Your task to perform on an android device: Show the shopping cart on costco.com. Image 0: 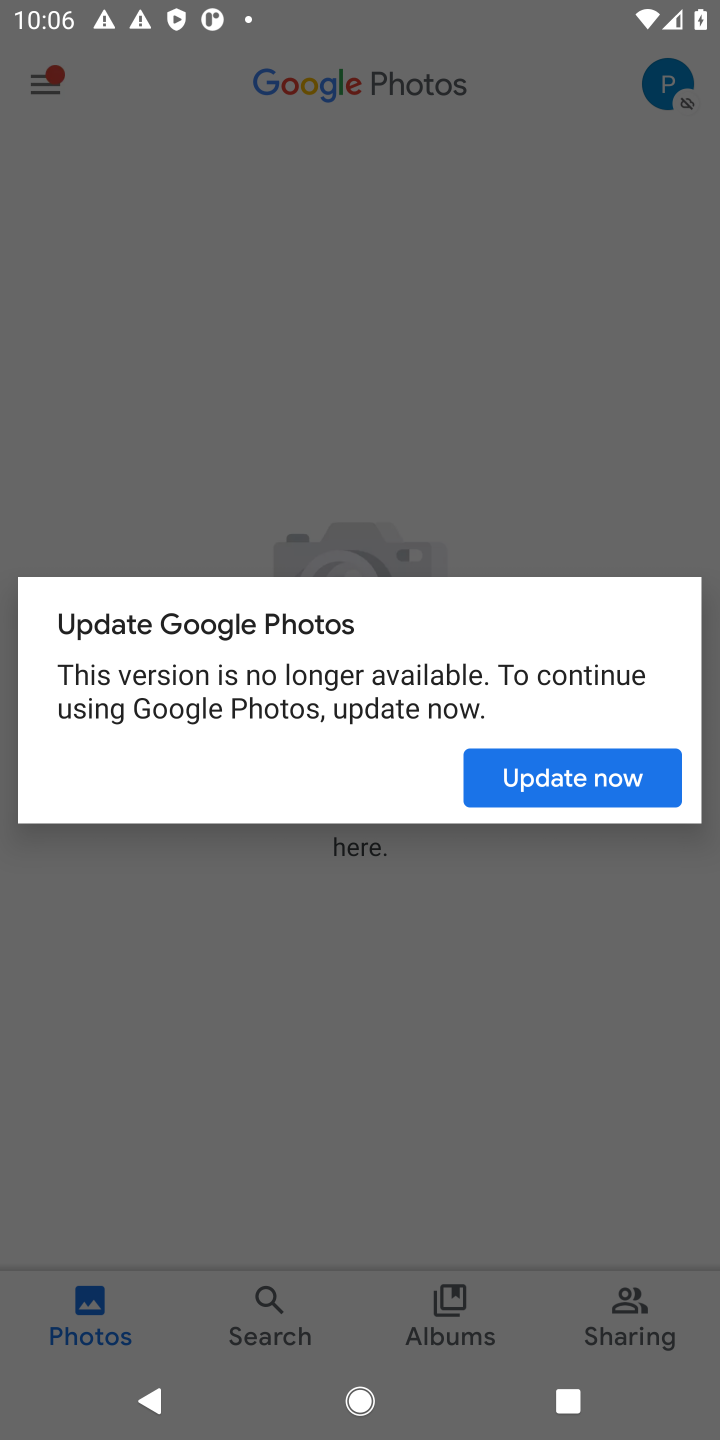
Step 0: press home button
Your task to perform on an android device: Show the shopping cart on costco.com. Image 1: 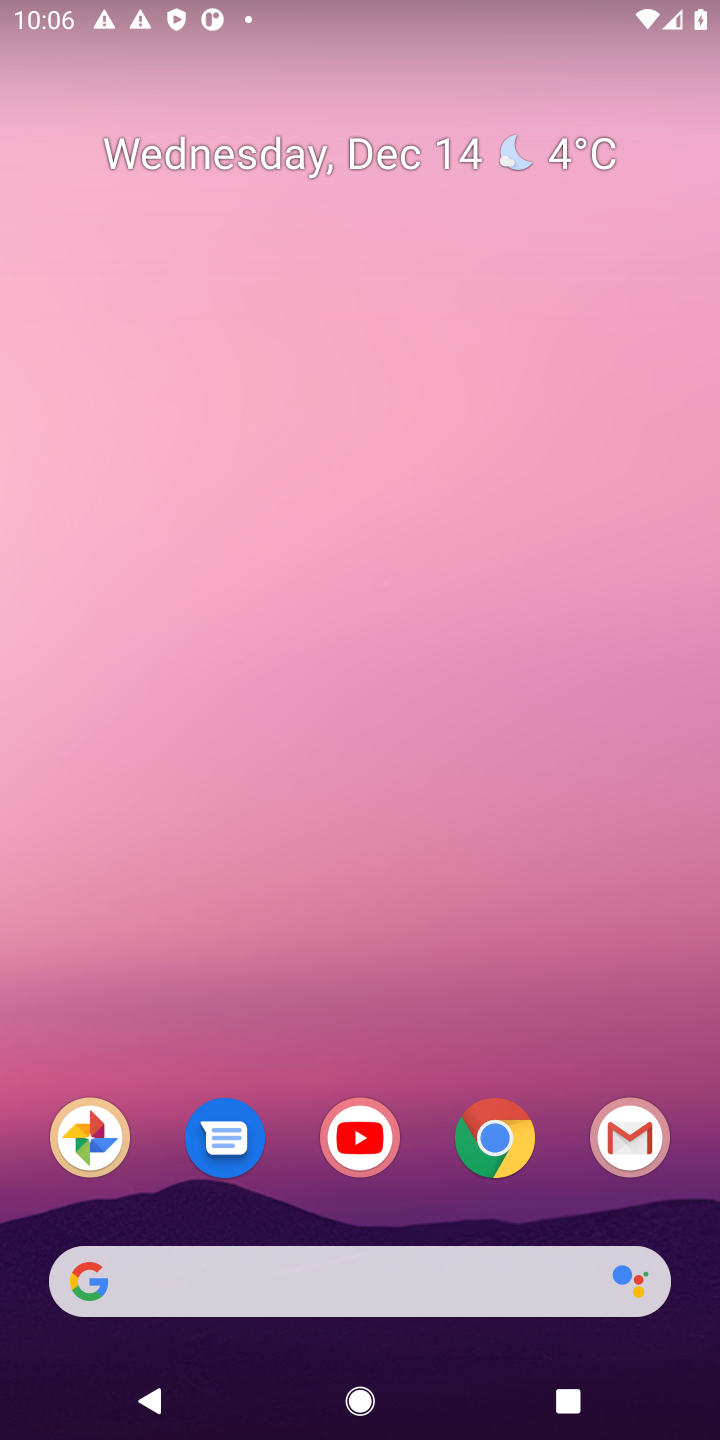
Step 1: click (487, 1150)
Your task to perform on an android device: Show the shopping cart on costco.com. Image 2: 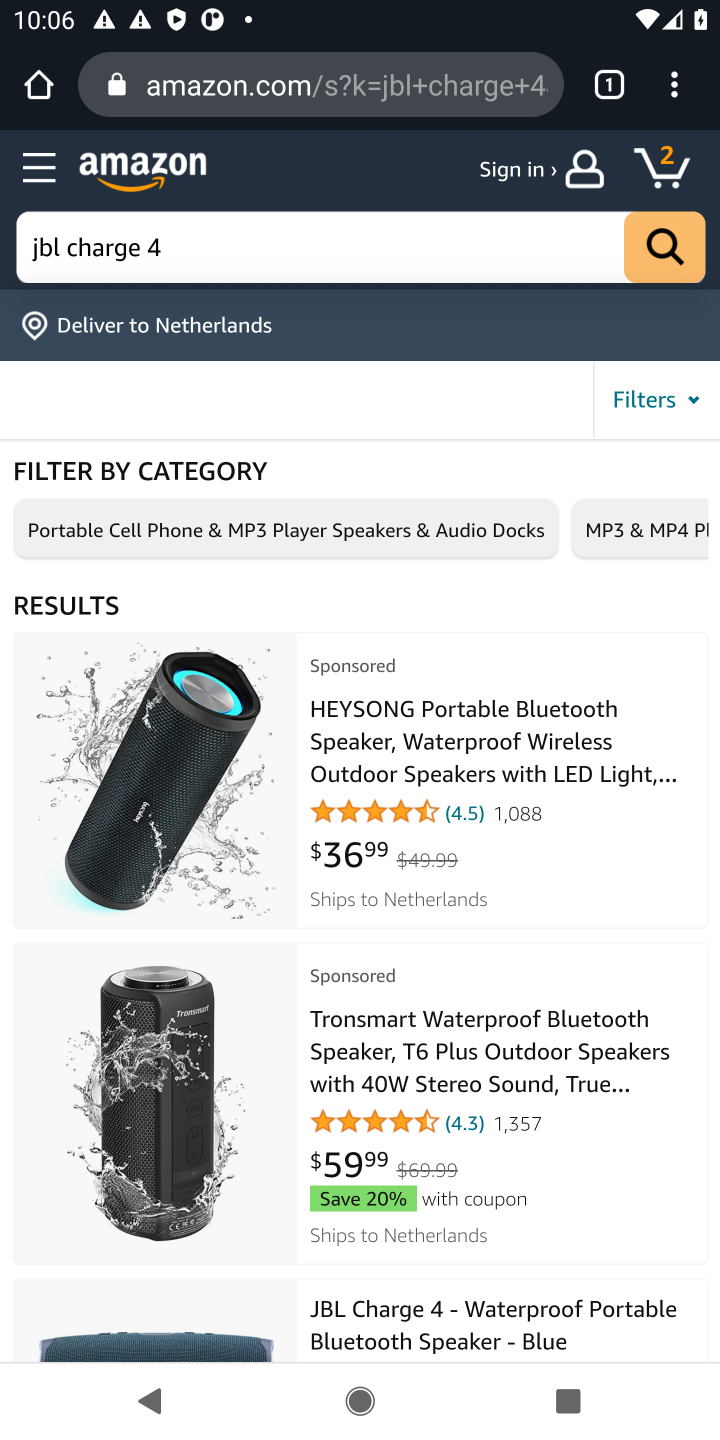
Step 2: click (228, 94)
Your task to perform on an android device: Show the shopping cart on costco.com. Image 3: 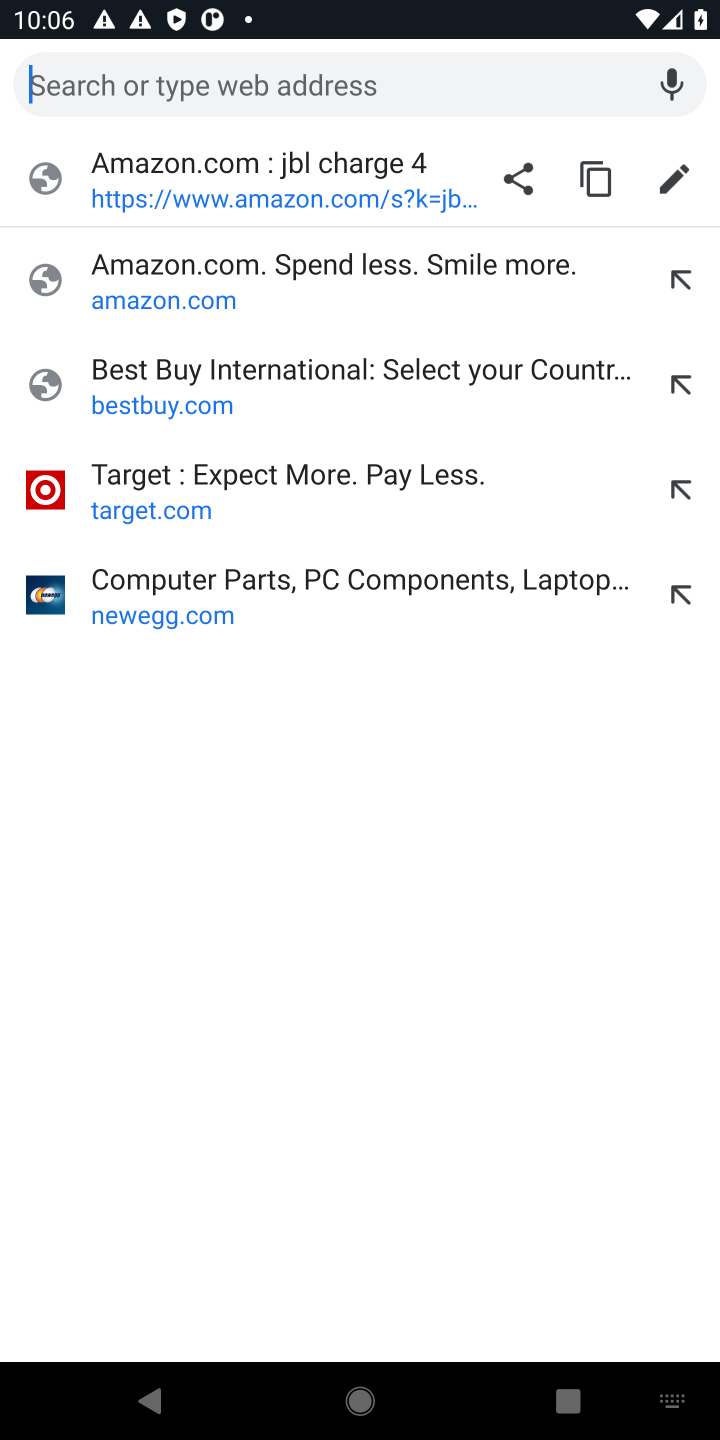
Step 3: type "costco.com"
Your task to perform on an android device: Show the shopping cart on costco.com. Image 4: 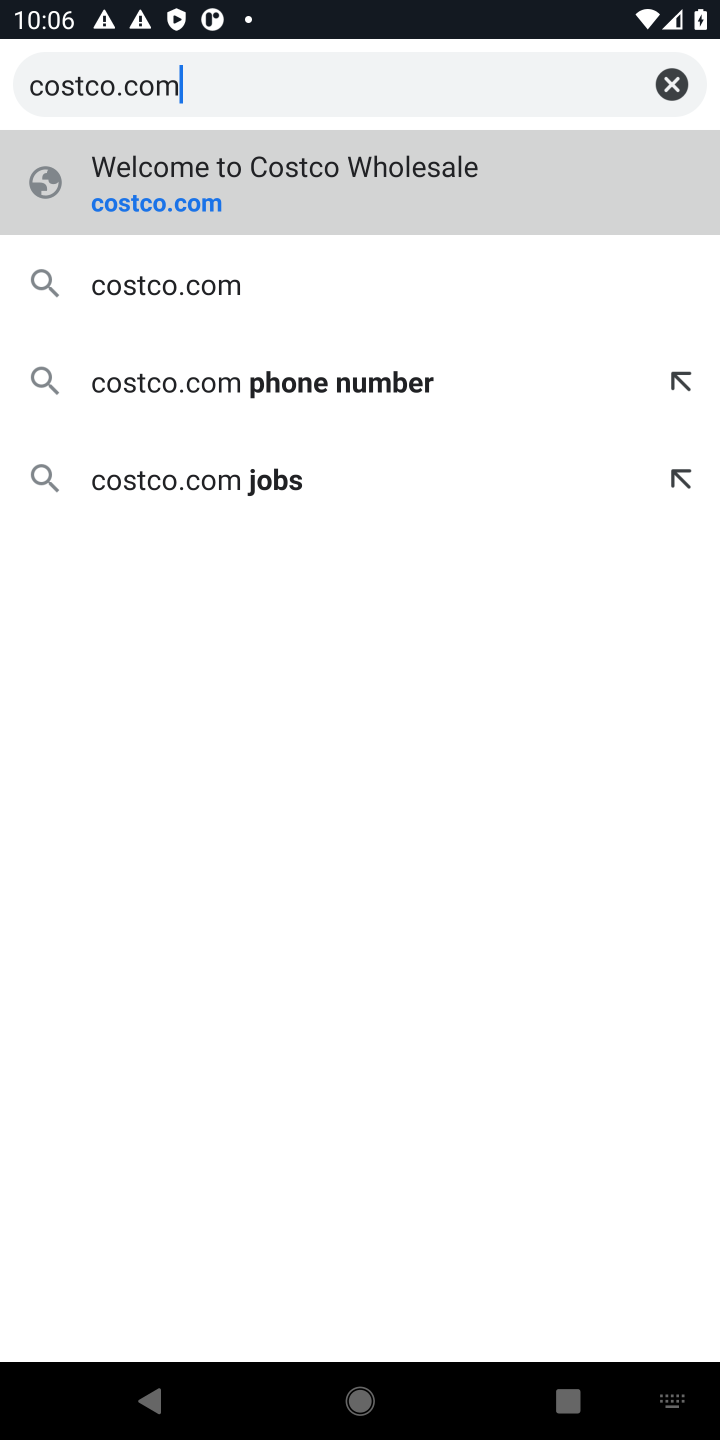
Step 4: click (120, 193)
Your task to perform on an android device: Show the shopping cart on costco.com. Image 5: 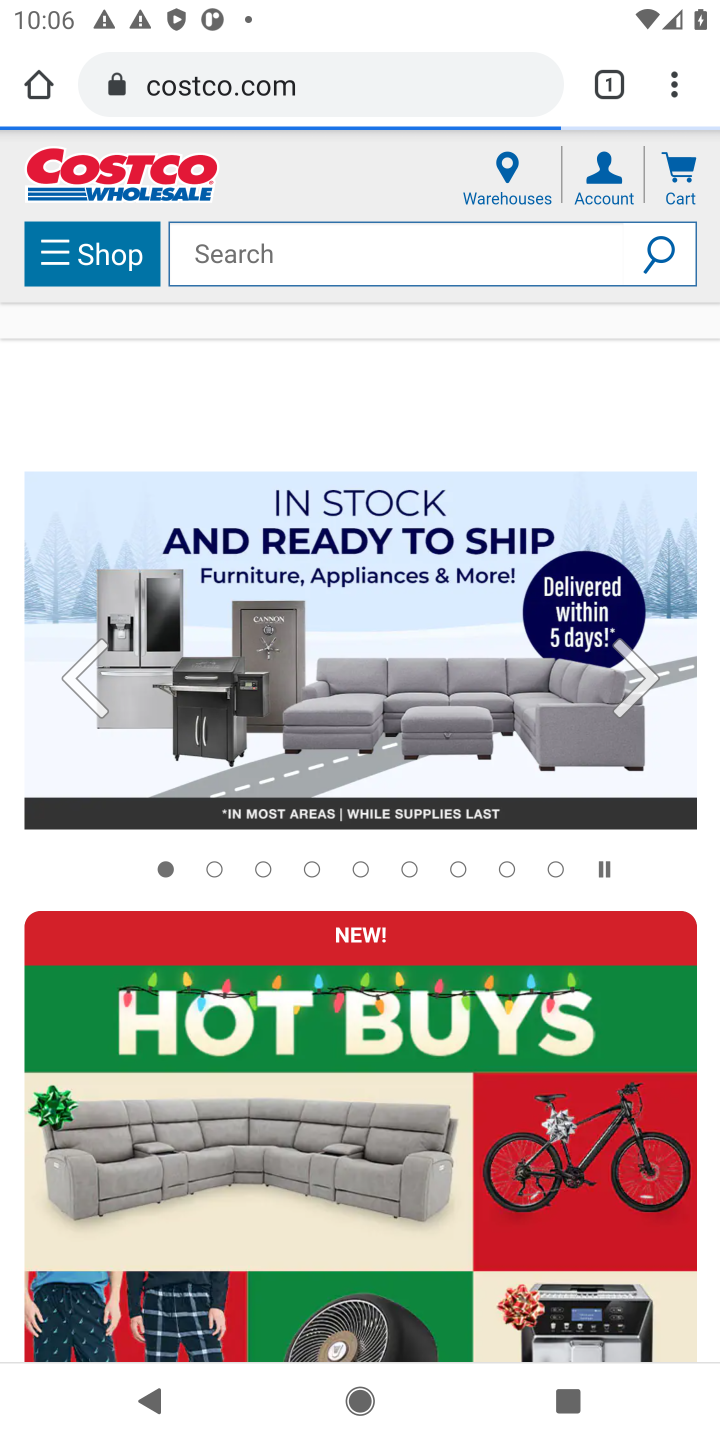
Step 5: click (683, 201)
Your task to perform on an android device: Show the shopping cart on costco.com. Image 6: 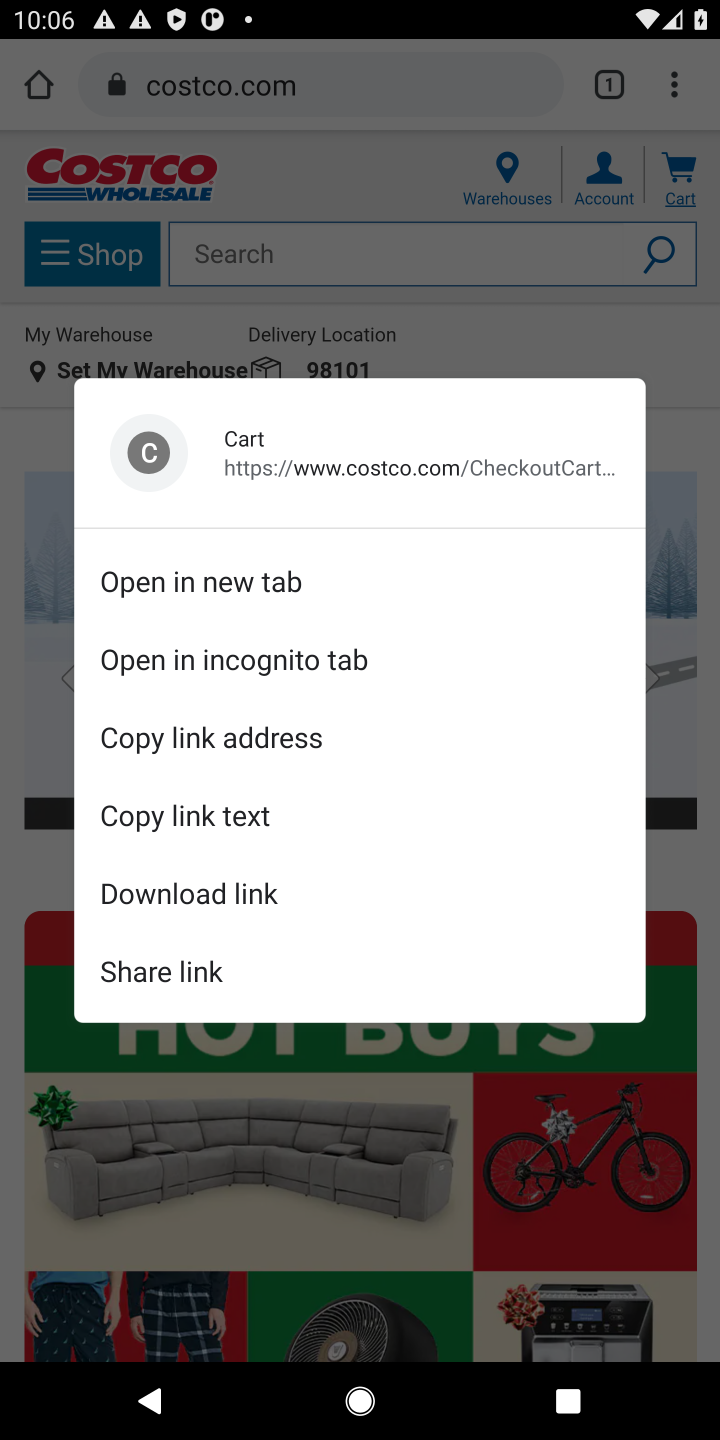
Step 6: click (683, 200)
Your task to perform on an android device: Show the shopping cart on costco.com. Image 7: 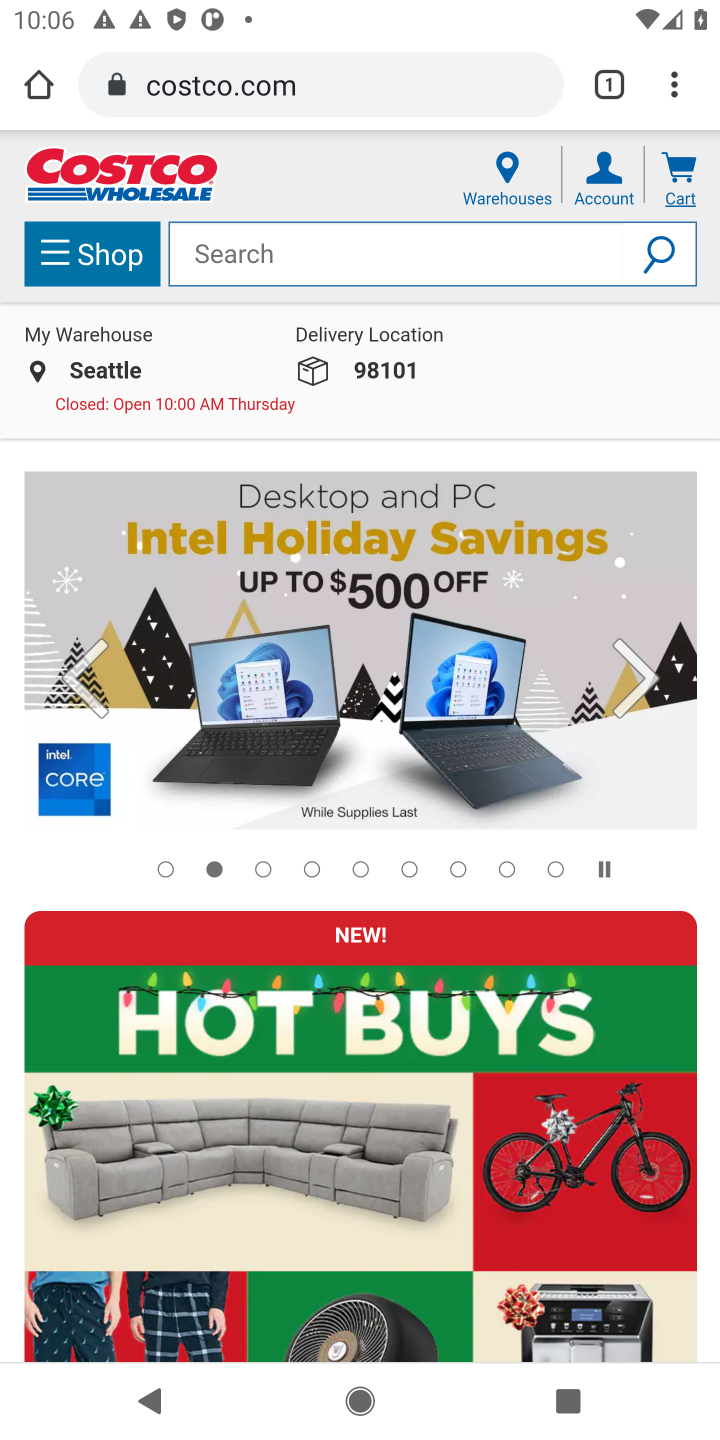
Step 7: click (676, 176)
Your task to perform on an android device: Show the shopping cart on costco.com. Image 8: 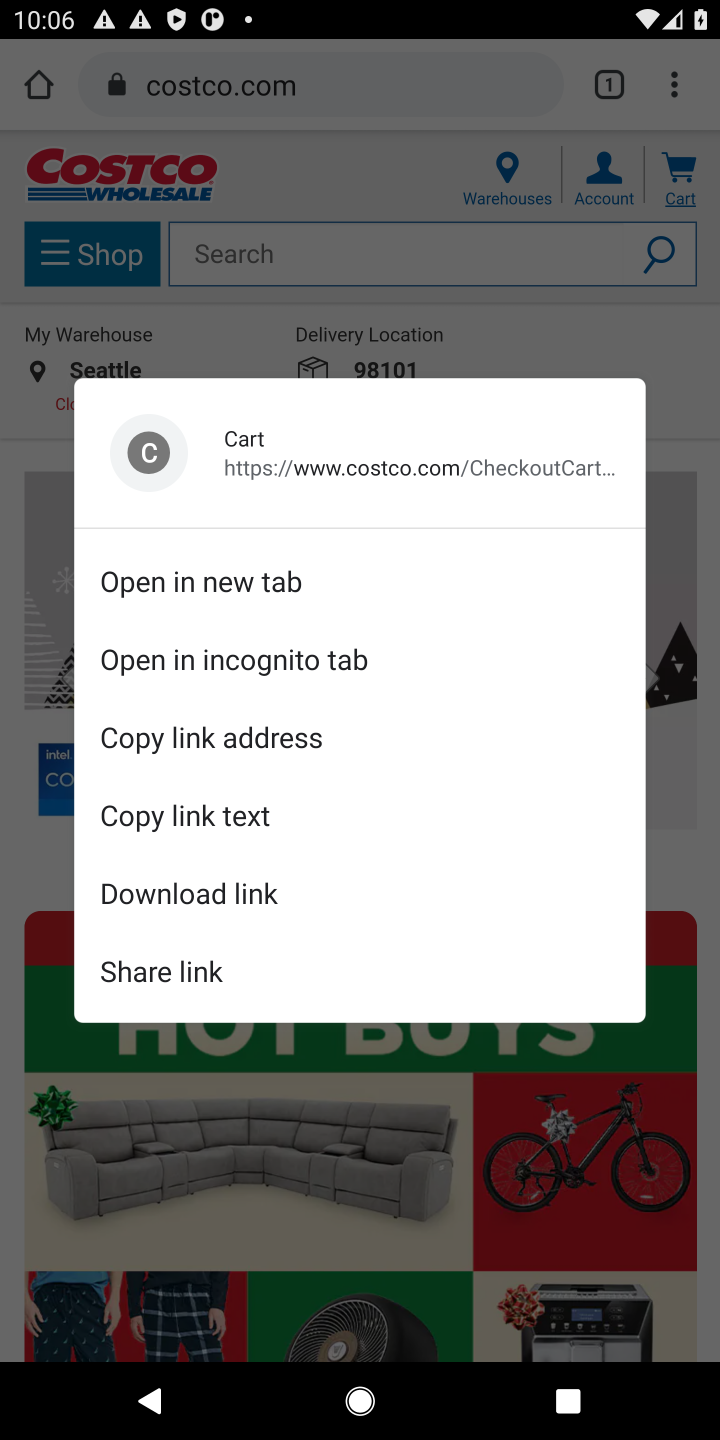
Step 8: click (676, 176)
Your task to perform on an android device: Show the shopping cart on costco.com. Image 9: 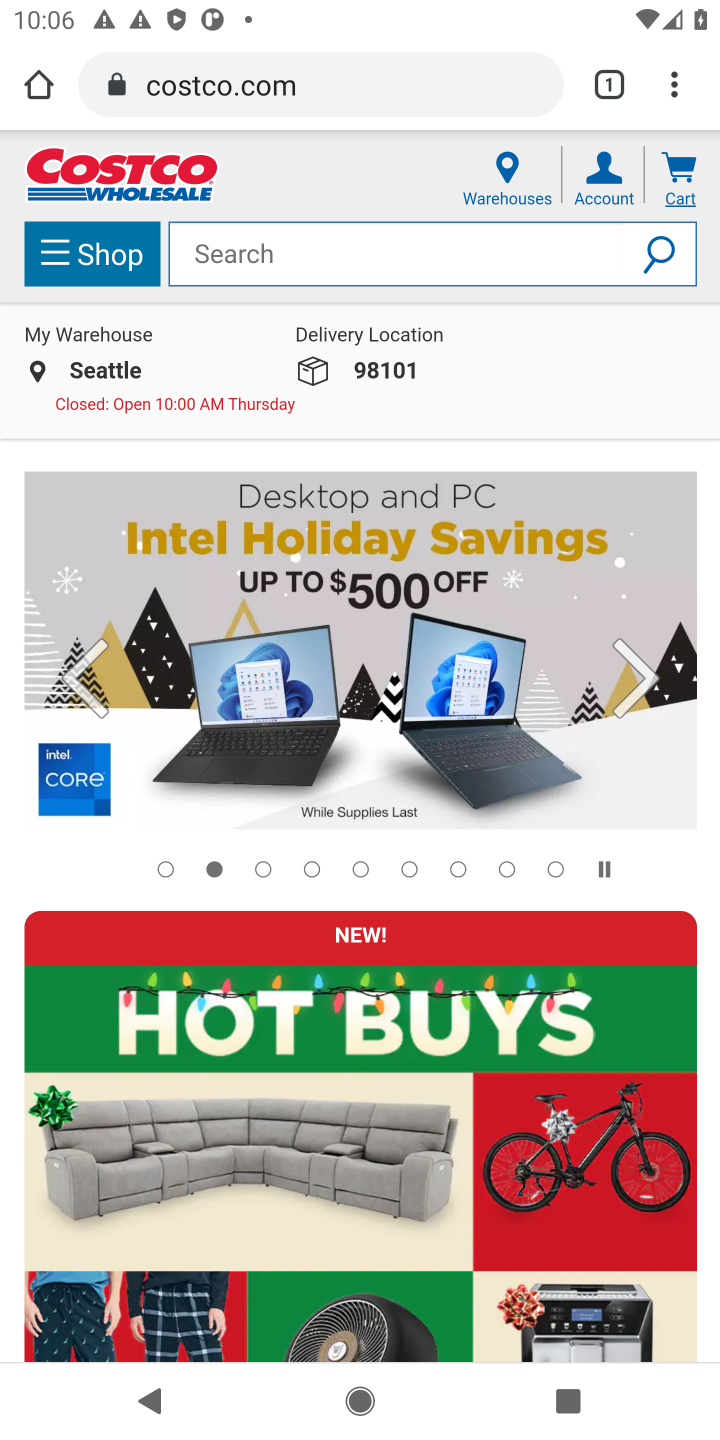
Step 9: click (674, 176)
Your task to perform on an android device: Show the shopping cart on costco.com. Image 10: 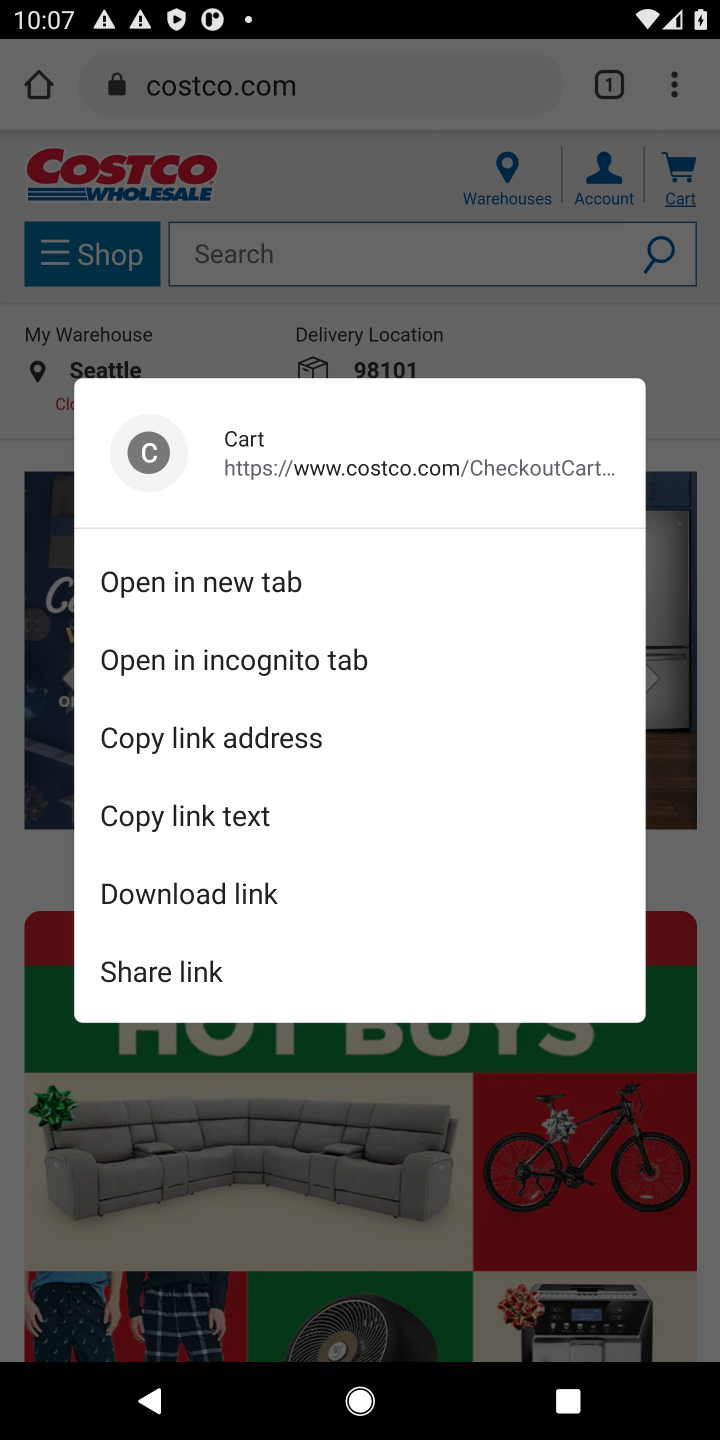
Step 10: click (694, 175)
Your task to perform on an android device: Show the shopping cart on costco.com. Image 11: 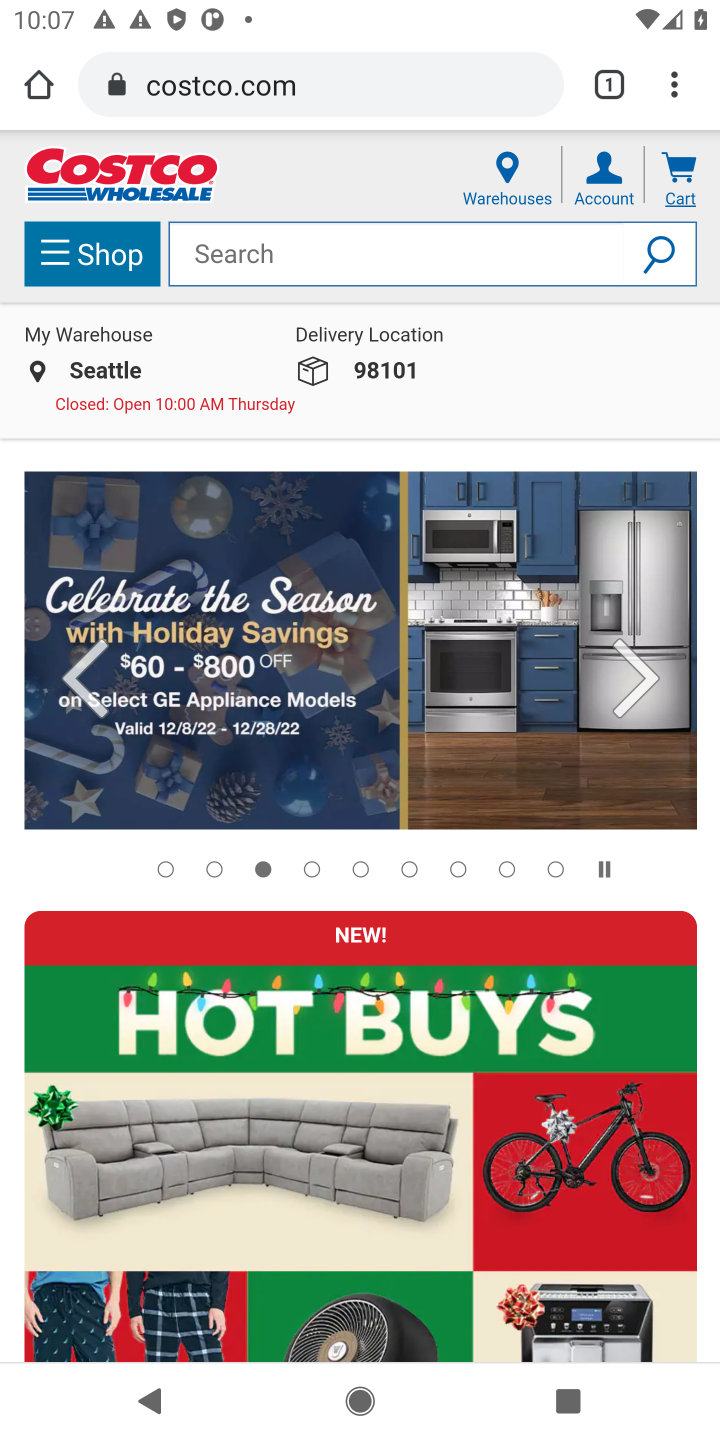
Step 11: click (694, 175)
Your task to perform on an android device: Show the shopping cart on costco.com. Image 12: 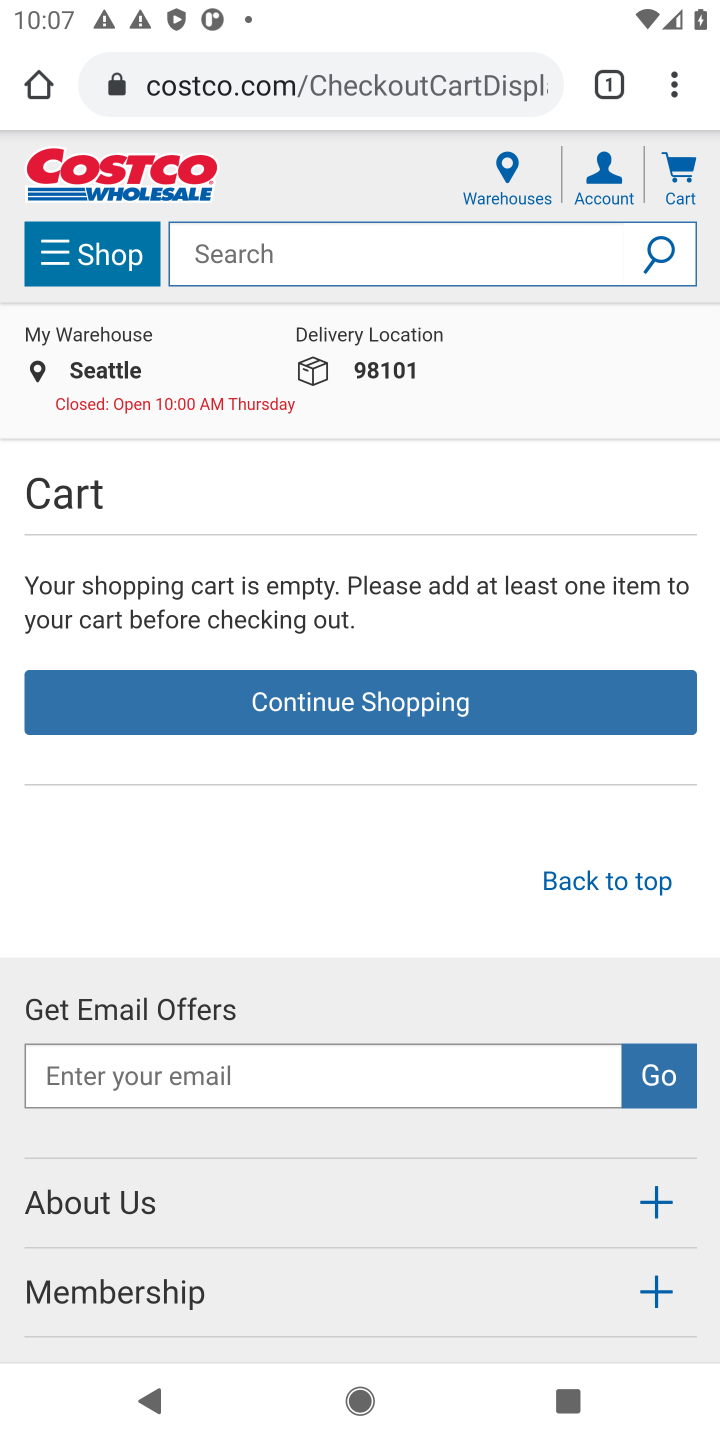
Step 12: task complete